Your task to perform on an android device: What is the news today? Image 0: 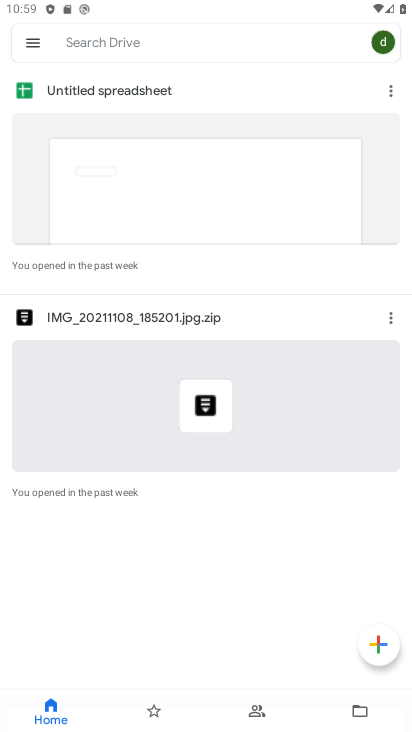
Step 0: press home button
Your task to perform on an android device: What is the news today? Image 1: 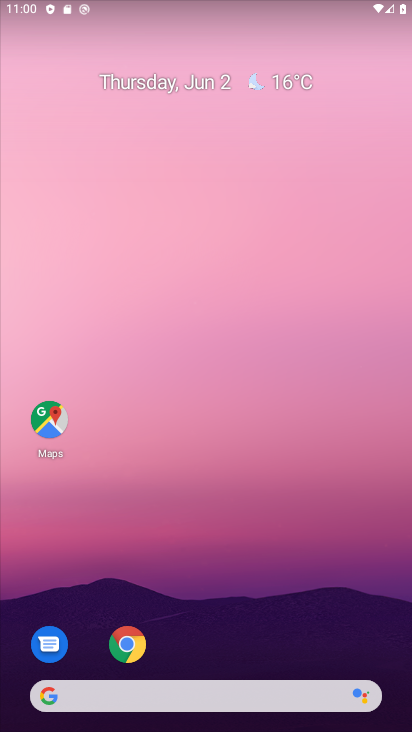
Step 1: drag from (179, 599) to (262, 160)
Your task to perform on an android device: What is the news today? Image 2: 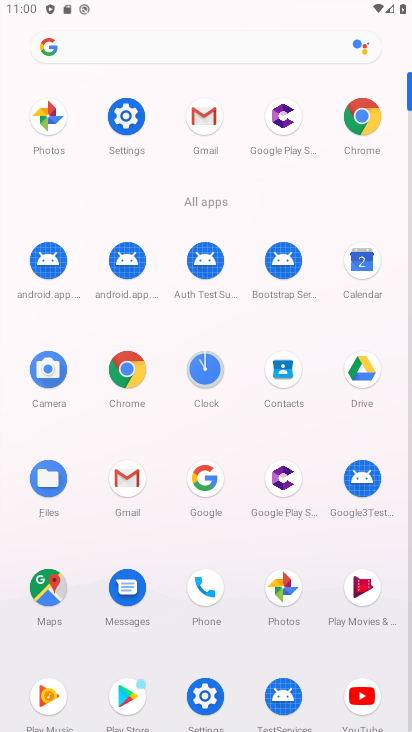
Step 2: click (367, 116)
Your task to perform on an android device: What is the news today? Image 3: 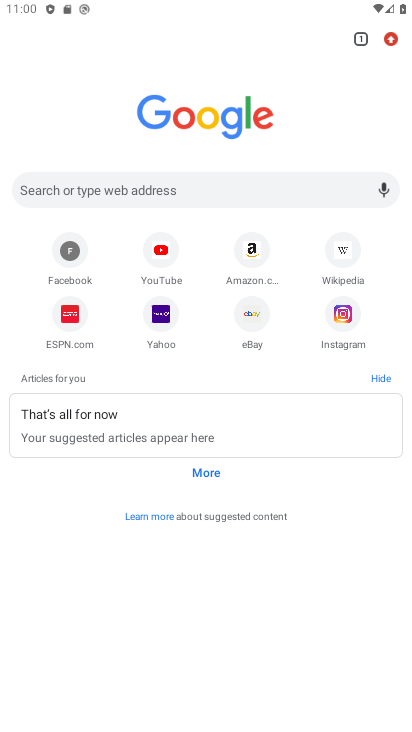
Step 3: click (146, 190)
Your task to perform on an android device: What is the news today? Image 4: 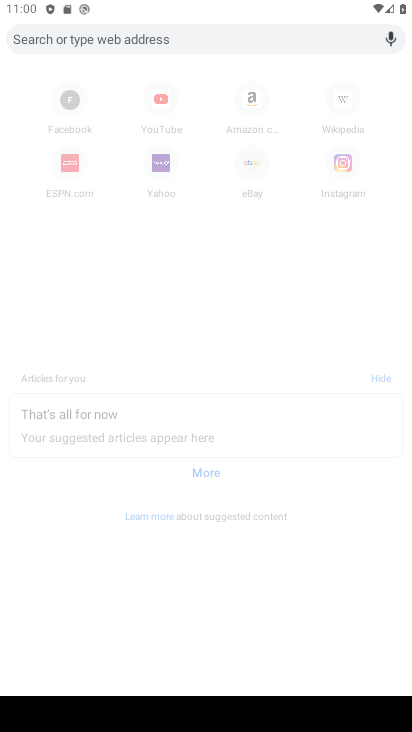
Step 4: type "What is the news today?"
Your task to perform on an android device: What is the news today? Image 5: 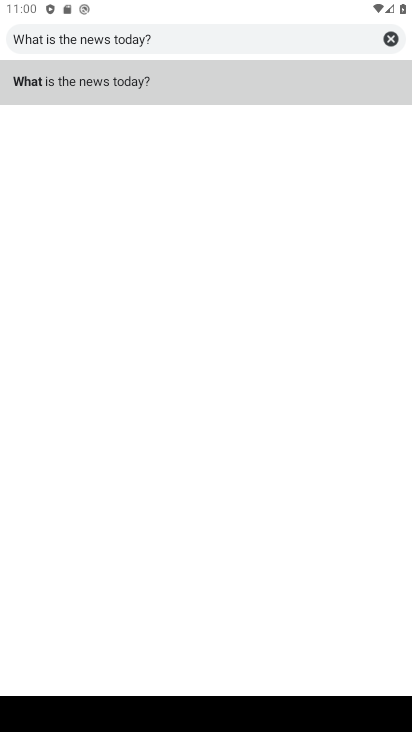
Step 5: click (74, 90)
Your task to perform on an android device: What is the news today? Image 6: 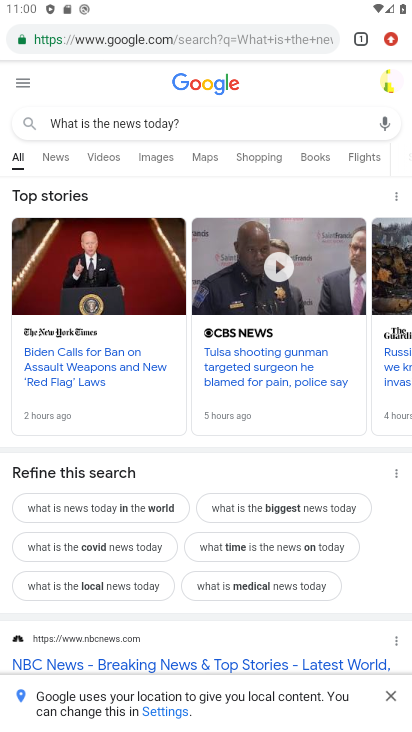
Step 6: task complete